Your task to perform on an android device: star an email in the gmail app Image 0: 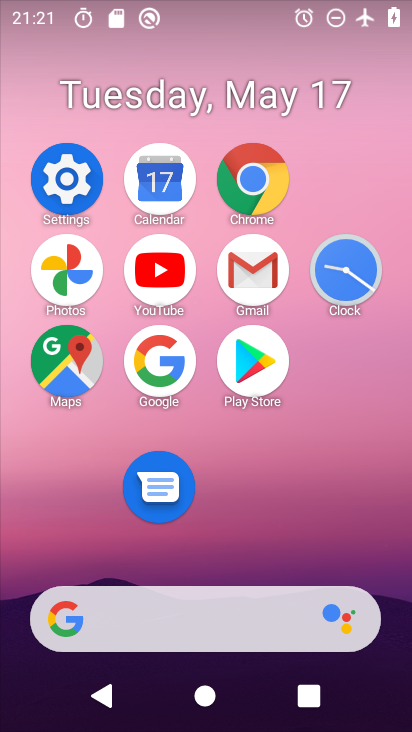
Step 0: click (249, 287)
Your task to perform on an android device: star an email in the gmail app Image 1: 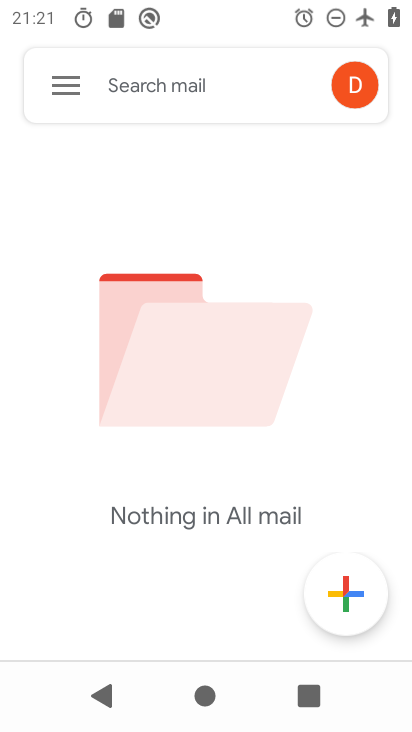
Step 1: click (62, 94)
Your task to perform on an android device: star an email in the gmail app Image 2: 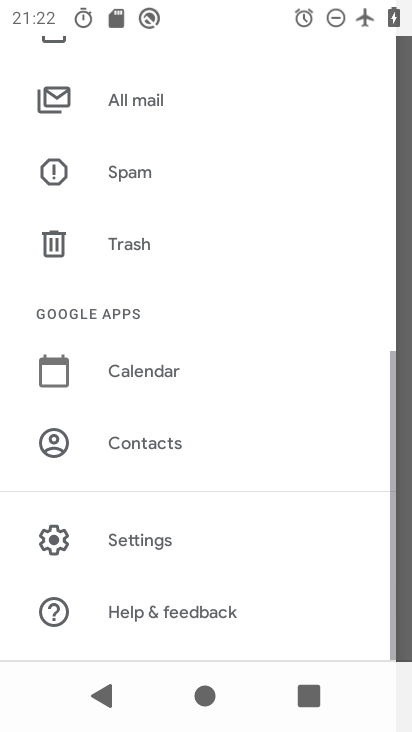
Step 2: drag from (207, 220) to (205, 450)
Your task to perform on an android device: star an email in the gmail app Image 3: 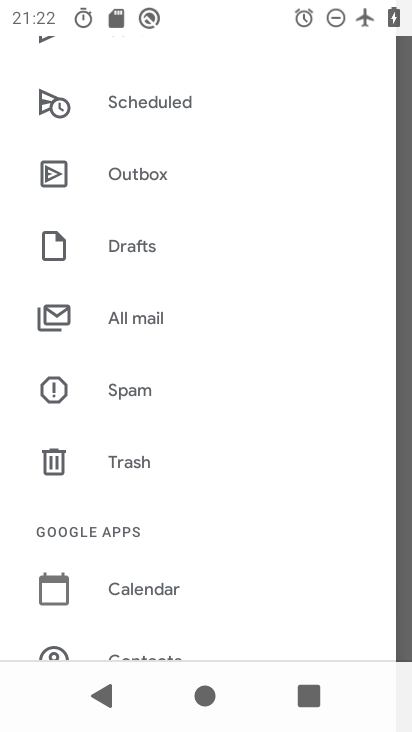
Step 3: click (198, 336)
Your task to perform on an android device: star an email in the gmail app Image 4: 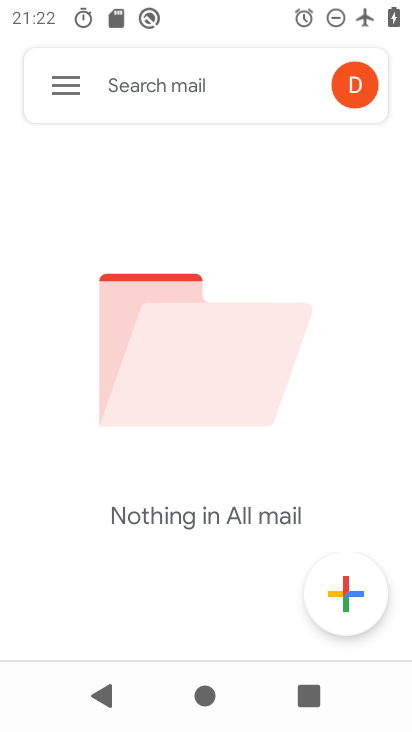
Step 4: task complete